Your task to perform on an android device: toggle airplane mode Image 0: 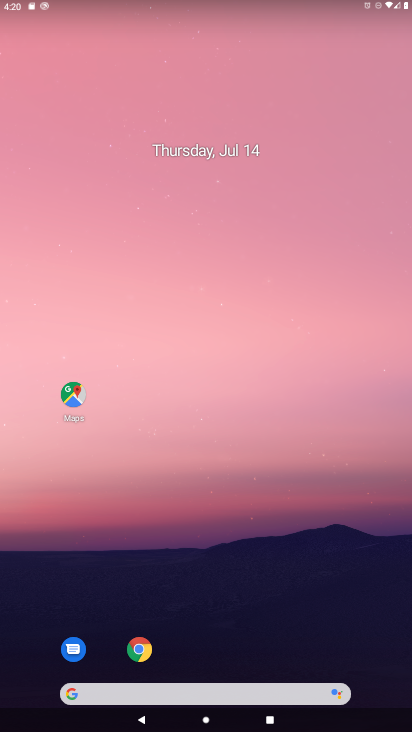
Step 0: drag from (194, 683) to (277, 88)
Your task to perform on an android device: toggle airplane mode Image 1: 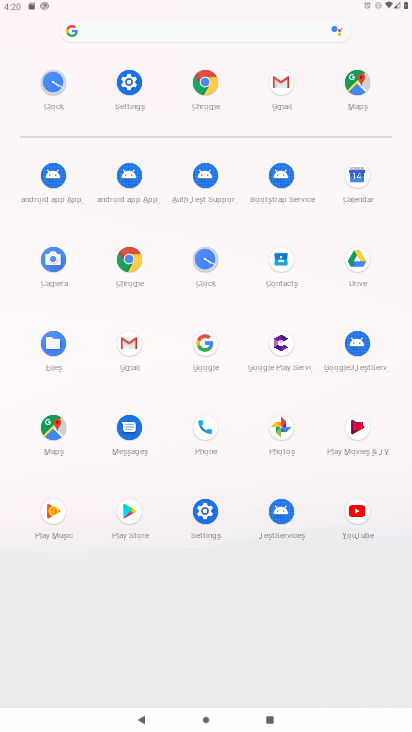
Step 1: click (210, 525)
Your task to perform on an android device: toggle airplane mode Image 2: 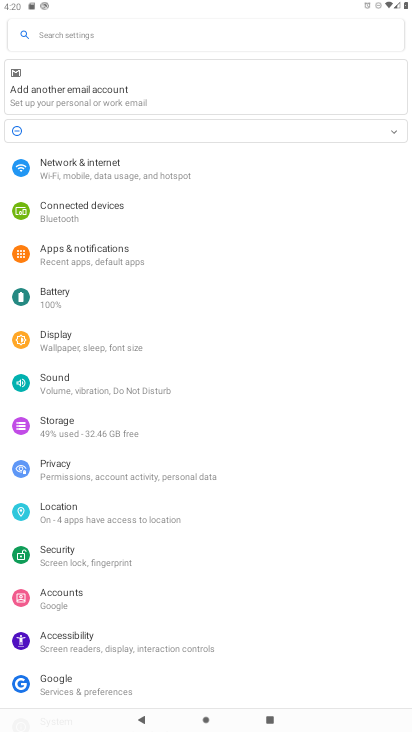
Step 2: click (128, 175)
Your task to perform on an android device: toggle airplane mode Image 3: 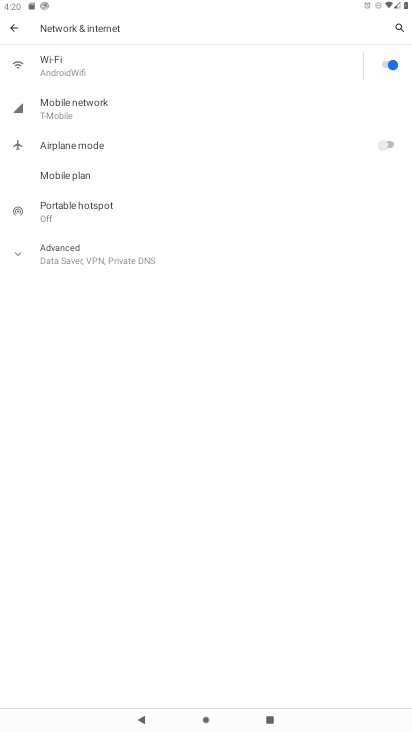
Step 3: click (398, 143)
Your task to perform on an android device: toggle airplane mode Image 4: 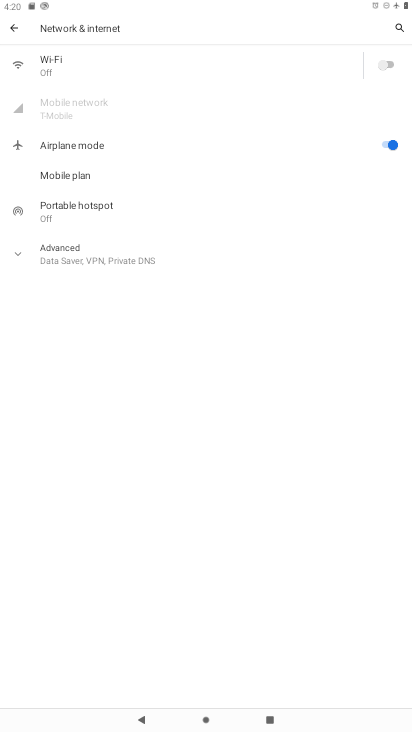
Step 4: task complete